Your task to perform on an android device: Clear the shopping cart on walmart. Add "usb-c to usb-b" to the cart on walmart Image 0: 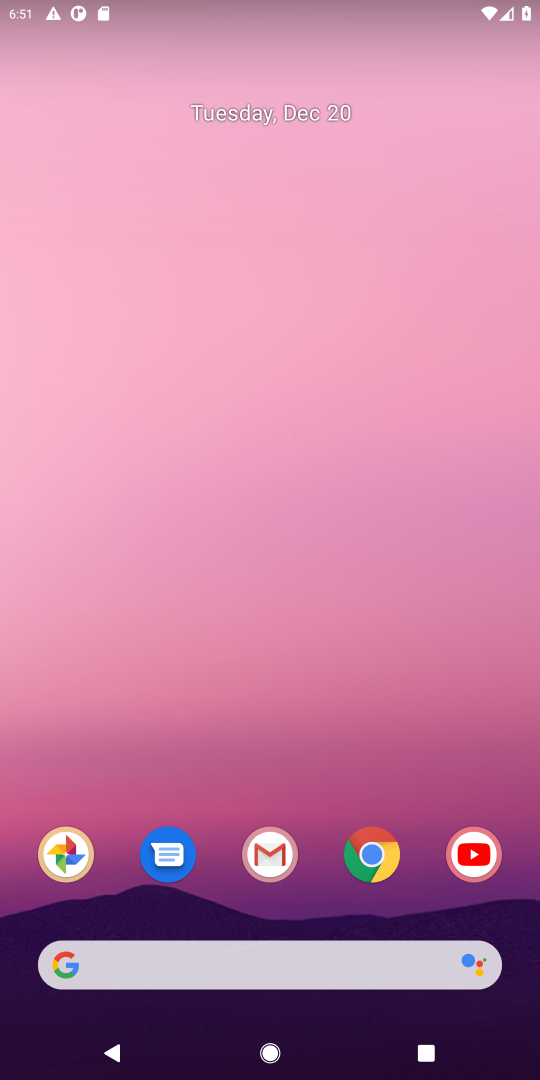
Step 0: click (366, 859)
Your task to perform on an android device: Clear the shopping cart on walmart. Add "usb-c to usb-b" to the cart on walmart Image 1: 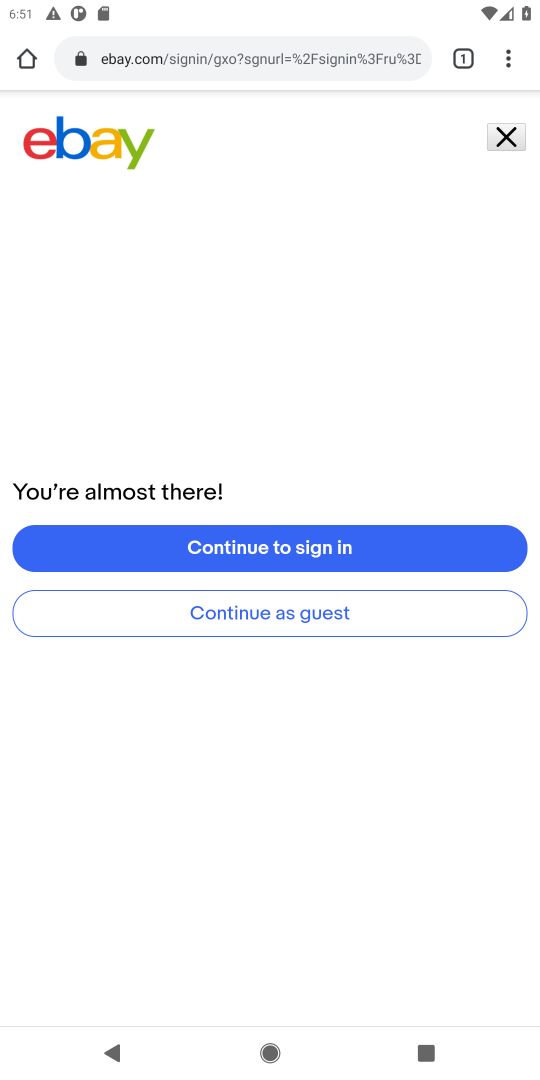
Step 1: click (190, 53)
Your task to perform on an android device: Clear the shopping cart on walmart. Add "usb-c to usb-b" to the cart on walmart Image 2: 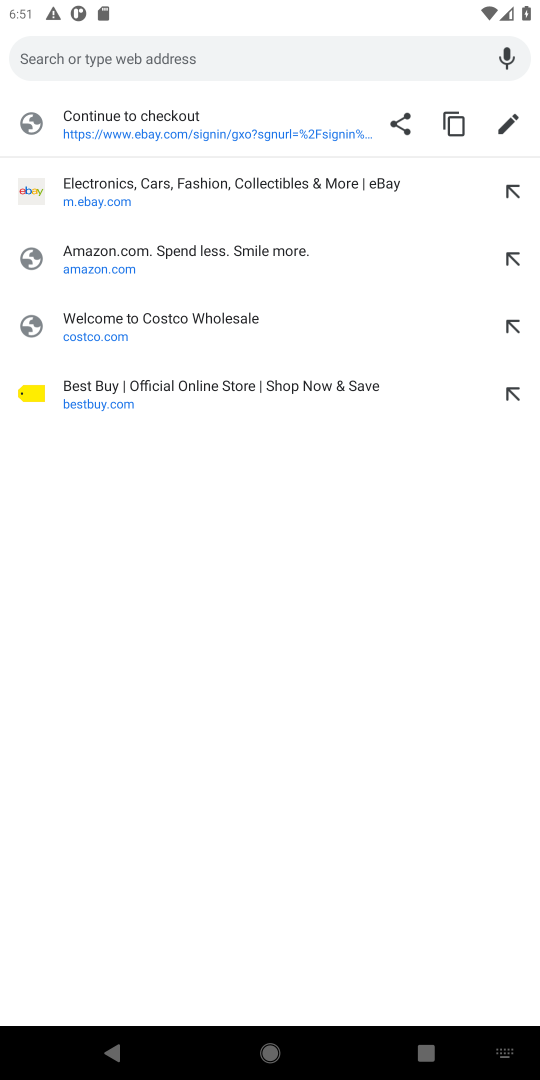
Step 2: type "walmart.com"
Your task to perform on an android device: Clear the shopping cart on walmart. Add "usb-c to usb-b" to the cart on walmart Image 3: 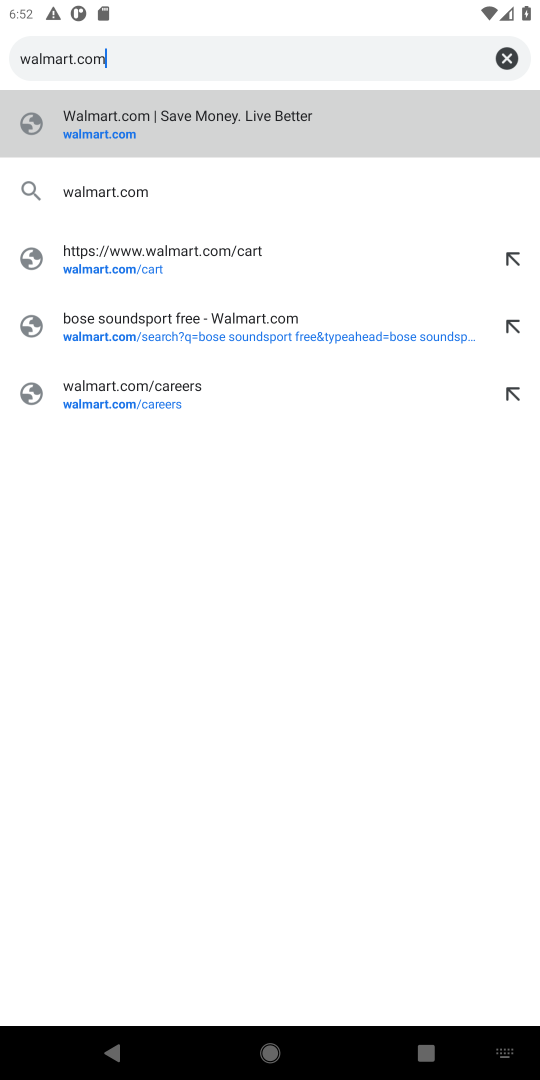
Step 3: click (106, 150)
Your task to perform on an android device: Clear the shopping cart on walmart. Add "usb-c to usb-b" to the cart on walmart Image 4: 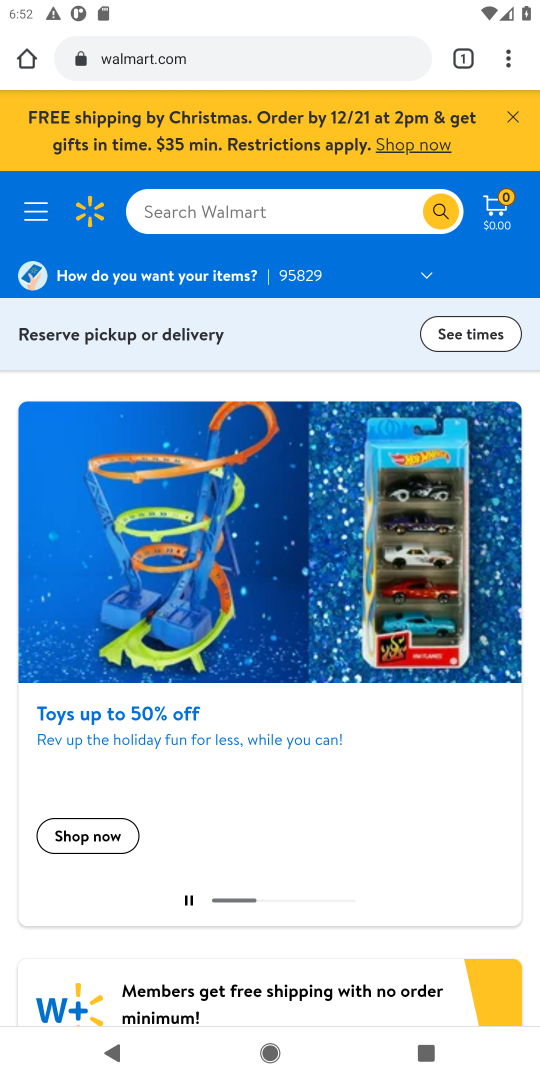
Step 4: click (492, 210)
Your task to perform on an android device: Clear the shopping cart on walmart. Add "usb-c to usb-b" to the cart on walmart Image 5: 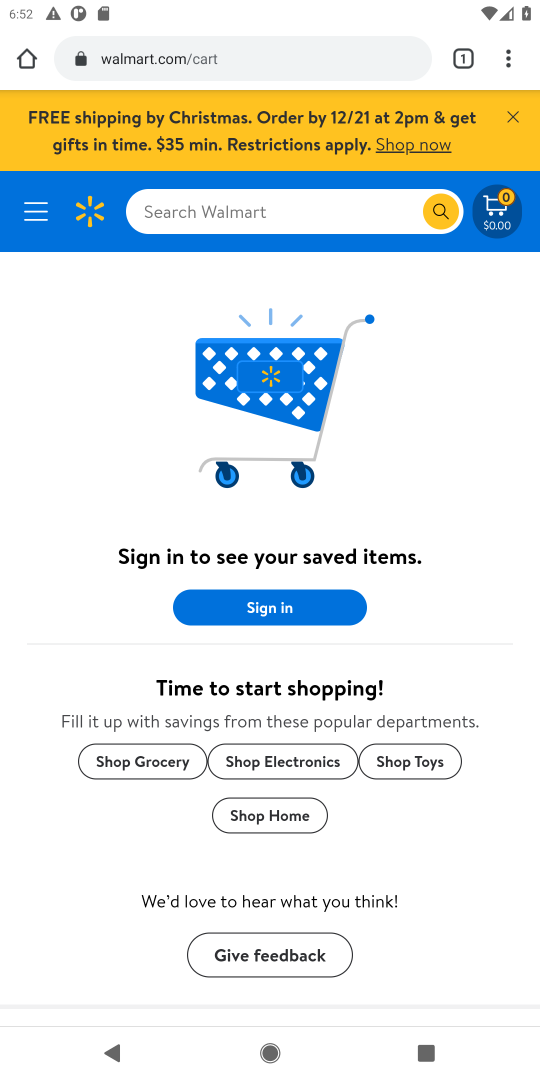
Step 5: click (185, 218)
Your task to perform on an android device: Clear the shopping cart on walmart. Add "usb-c to usb-b" to the cart on walmart Image 6: 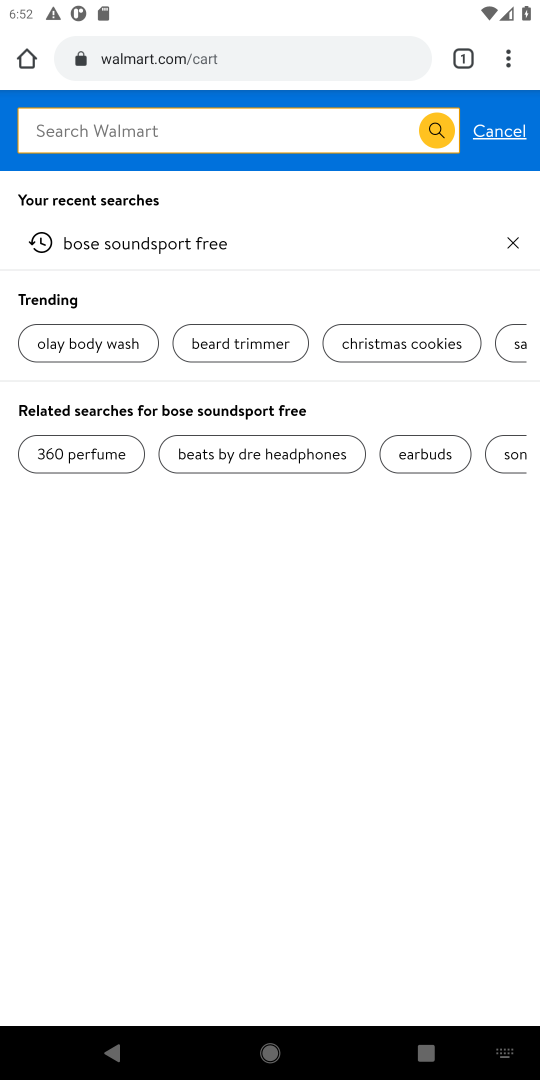
Step 6: type "usb-c to usb-b"
Your task to perform on an android device: Clear the shopping cart on walmart. Add "usb-c to usb-b" to the cart on walmart Image 7: 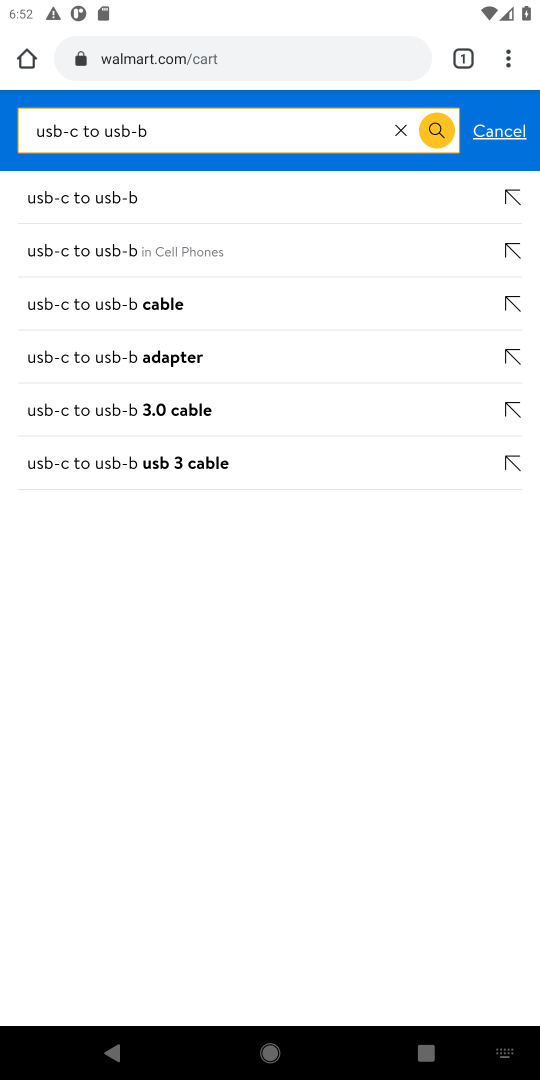
Step 7: click (84, 203)
Your task to perform on an android device: Clear the shopping cart on walmart. Add "usb-c to usb-b" to the cart on walmart Image 8: 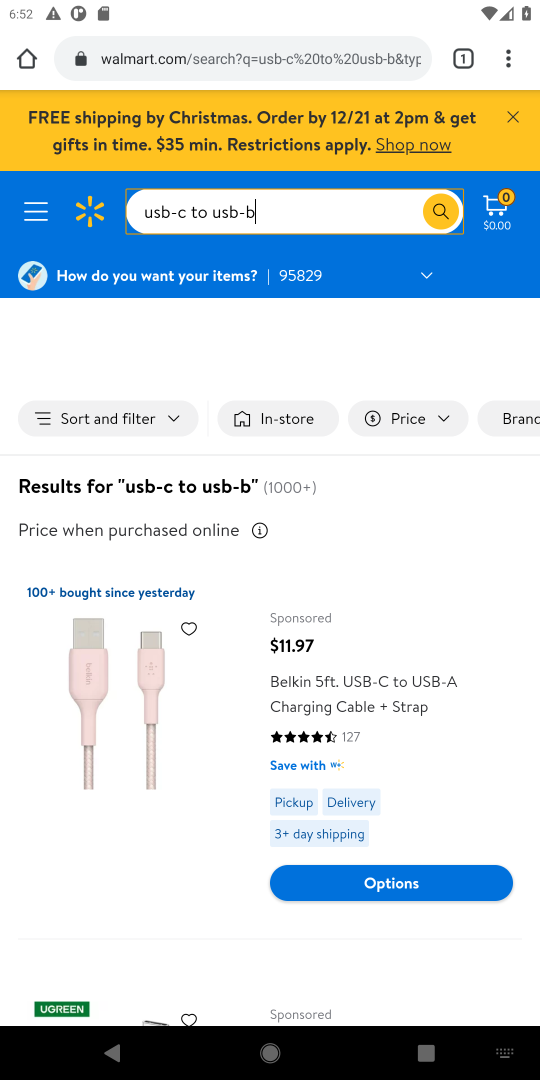
Step 8: drag from (217, 711) to (195, 282)
Your task to perform on an android device: Clear the shopping cart on walmart. Add "usb-c to usb-b" to the cart on walmart Image 9: 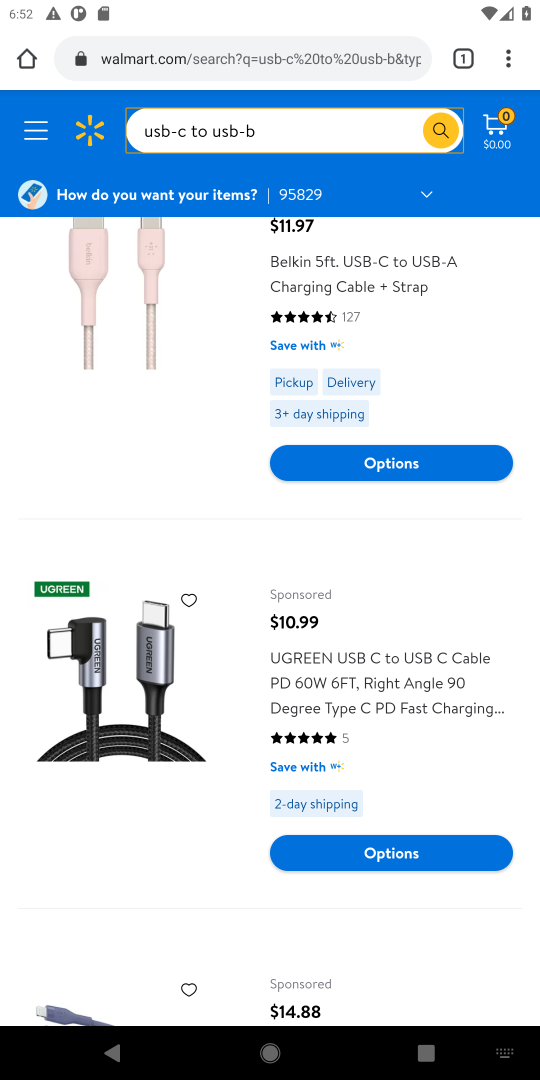
Step 9: click (365, 703)
Your task to perform on an android device: Clear the shopping cart on walmart. Add "usb-c to usb-b" to the cart on walmart Image 10: 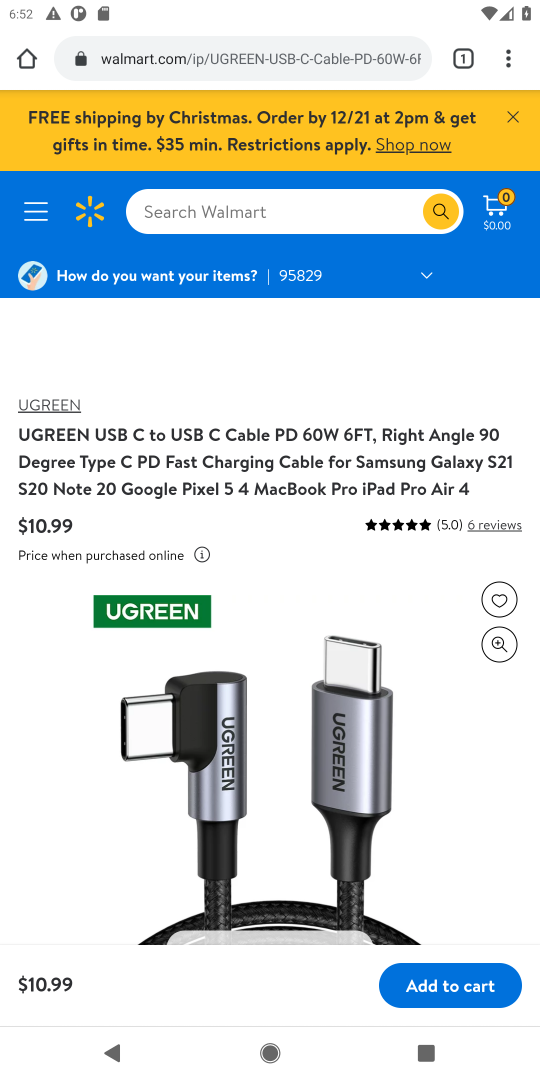
Step 10: press back button
Your task to perform on an android device: Clear the shopping cart on walmart. Add "usb-c to usb-b" to the cart on walmart Image 11: 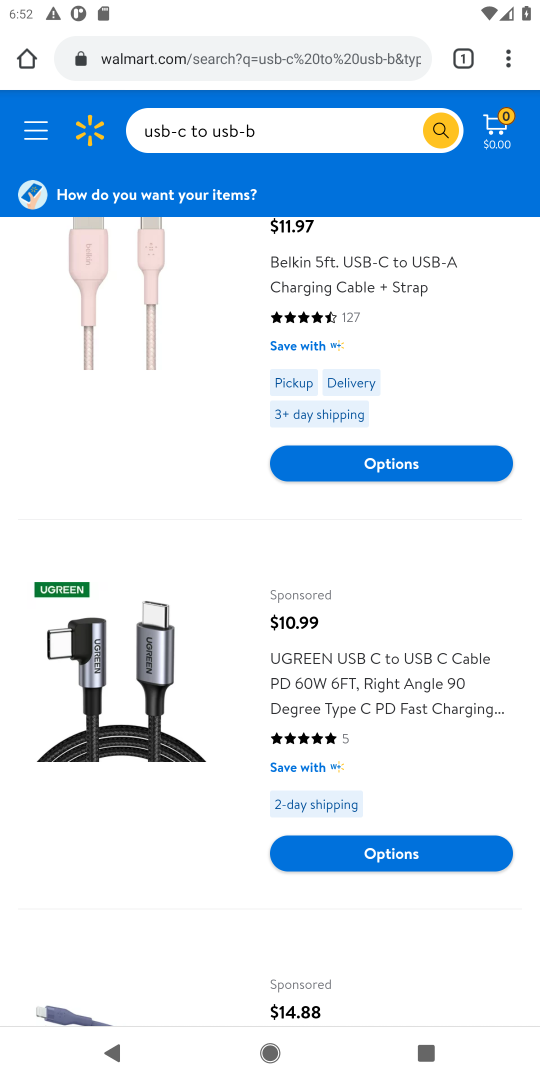
Step 11: drag from (160, 725) to (113, 269)
Your task to perform on an android device: Clear the shopping cart on walmart. Add "usb-c to usb-b" to the cart on walmart Image 12: 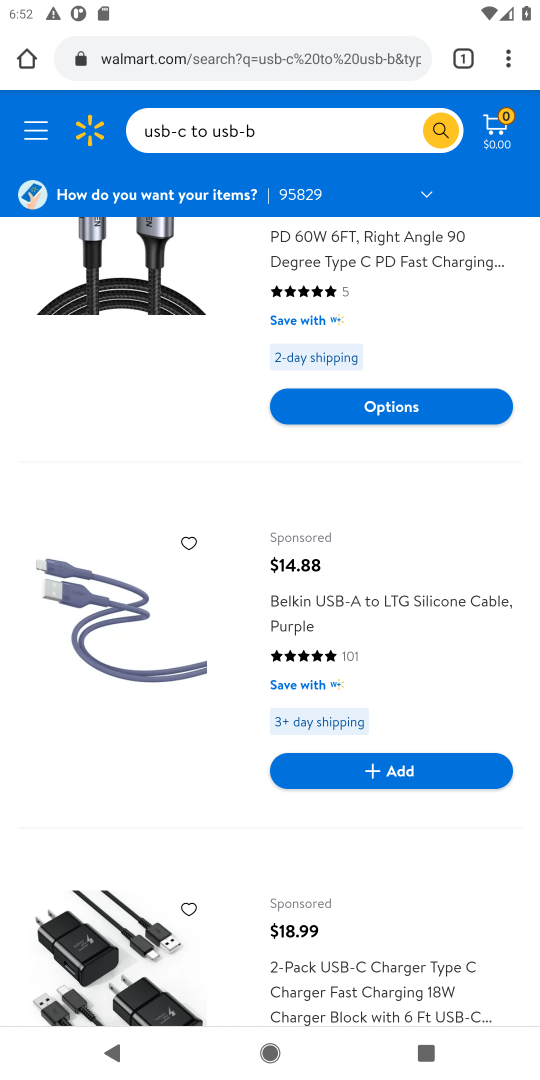
Step 12: drag from (145, 667) to (148, 352)
Your task to perform on an android device: Clear the shopping cart on walmart. Add "usb-c to usb-b" to the cart on walmart Image 13: 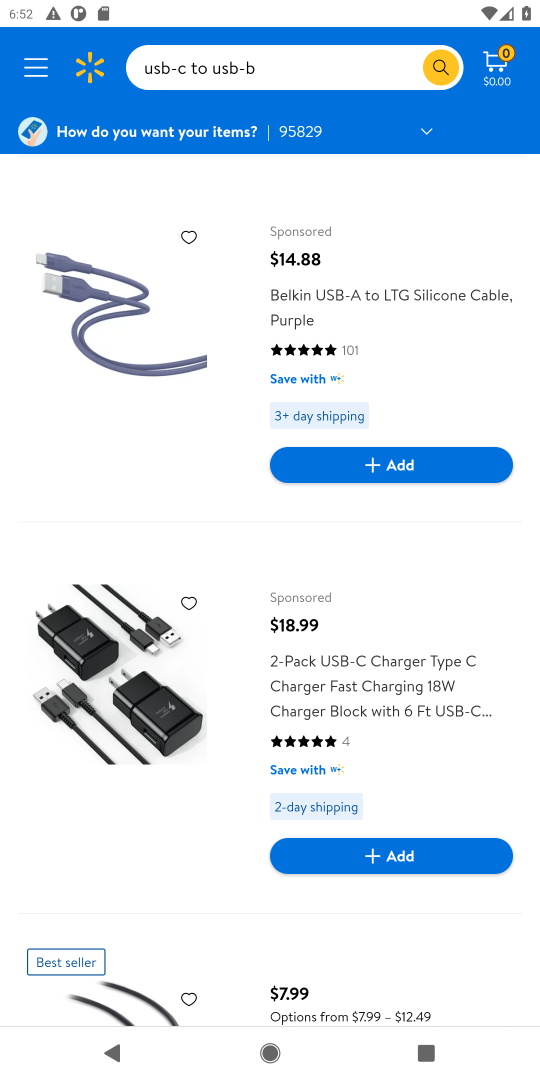
Step 13: drag from (112, 698) to (76, 342)
Your task to perform on an android device: Clear the shopping cart on walmart. Add "usb-c to usb-b" to the cart on walmart Image 14: 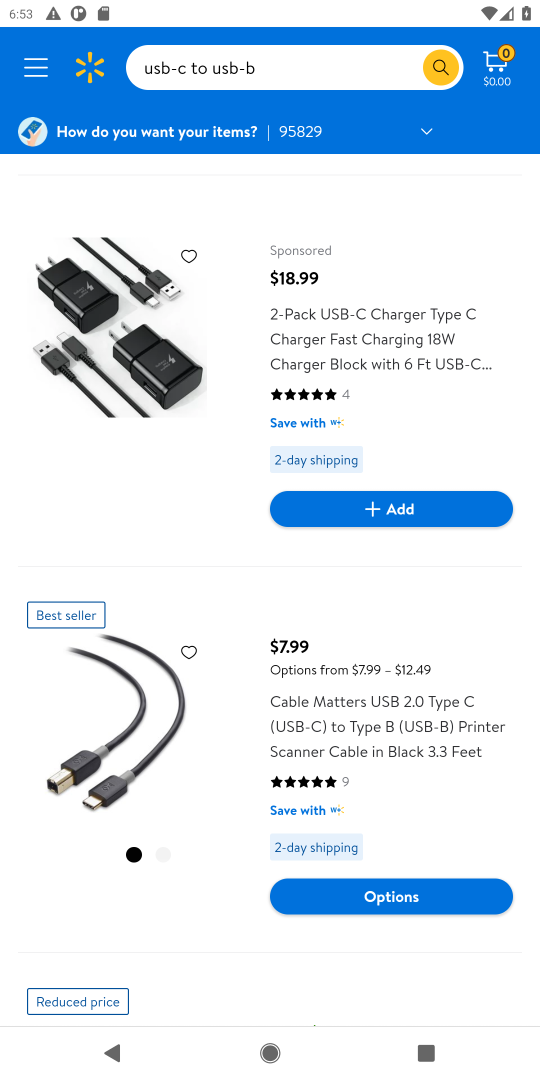
Step 14: click (344, 738)
Your task to perform on an android device: Clear the shopping cart on walmart. Add "usb-c to usb-b" to the cart on walmart Image 15: 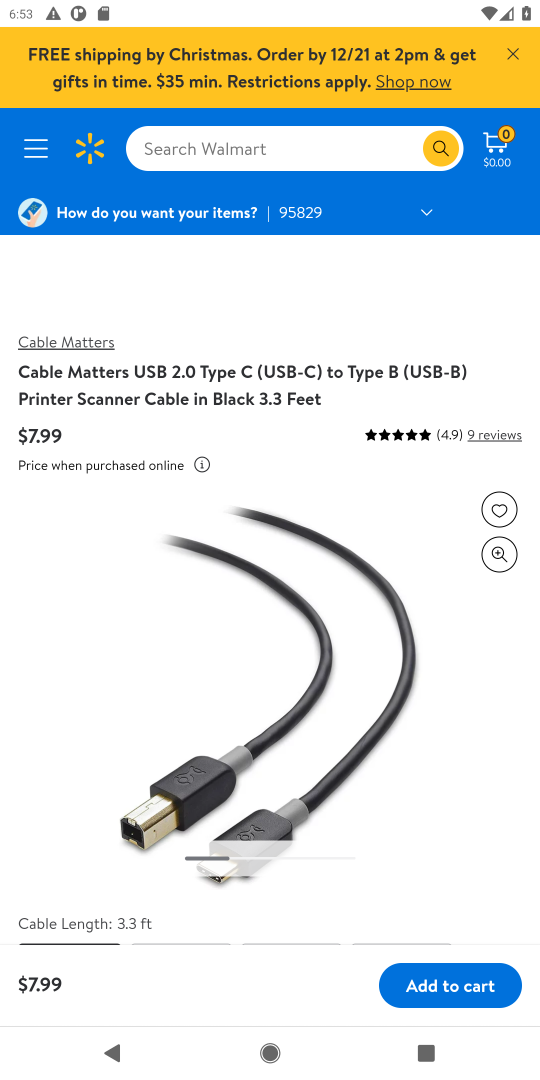
Step 15: click (433, 988)
Your task to perform on an android device: Clear the shopping cart on walmart. Add "usb-c to usb-b" to the cart on walmart Image 16: 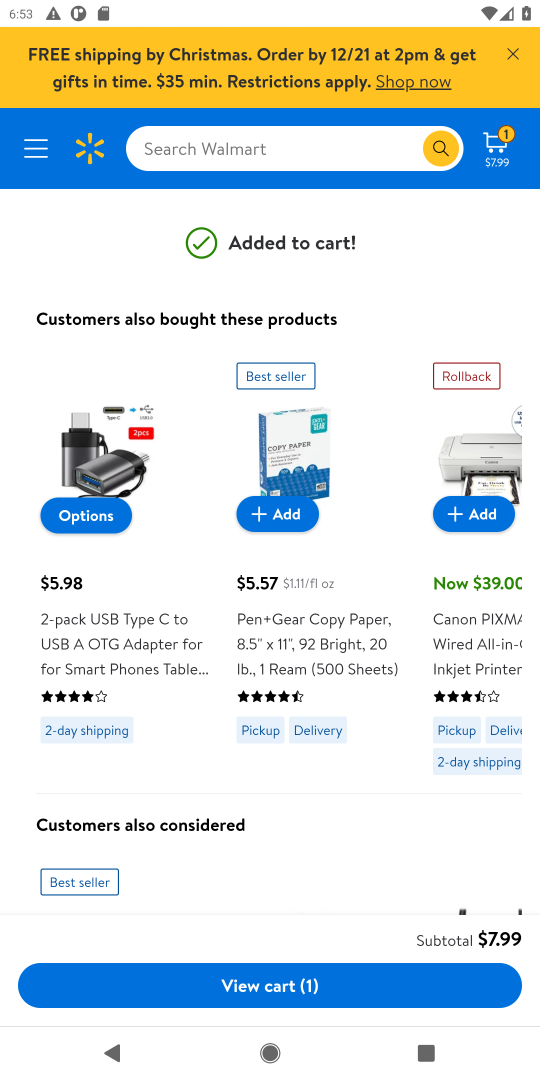
Step 16: task complete